Your task to perform on an android device: turn on the 12-hour format for clock Image 0: 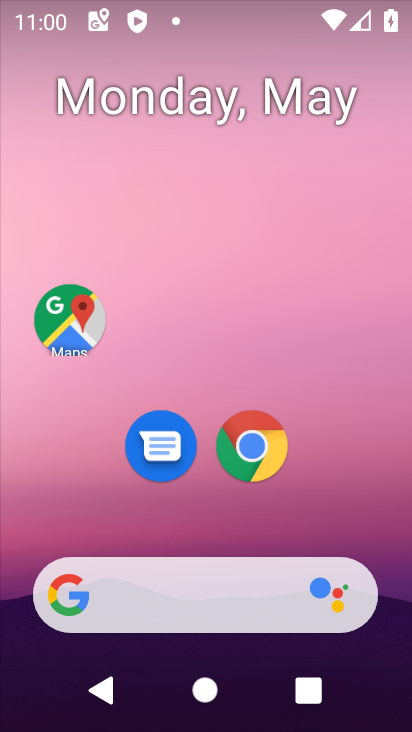
Step 0: drag from (358, 491) to (339, 14)
Your task to perform on an android device: turn on the 12-hour format for clock Image 1: 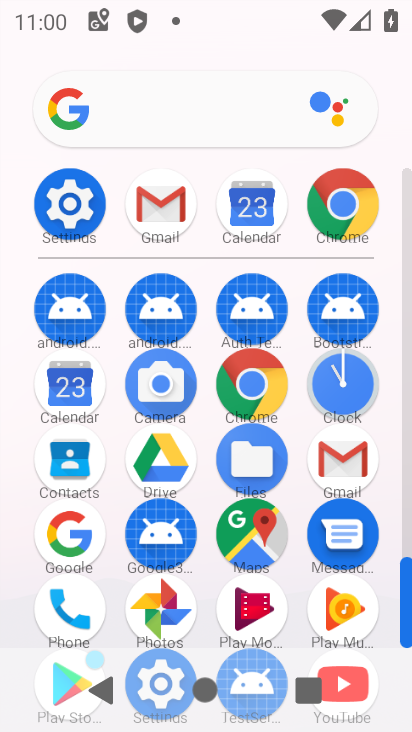
Step 1: click (354, 383)
Your task to perform on an android device: turn on the 12-hour format for clock Image 2: 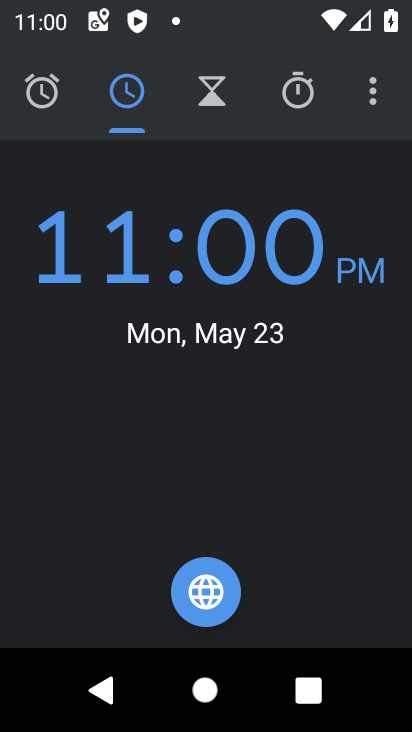
Step 2: click (363, 98)
Your task to perform on an android device: turn on the 12-hour format for clock Image 3: 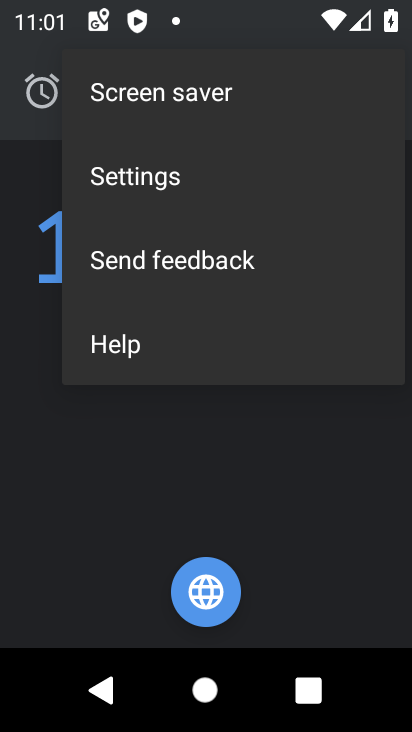
Step 3: click (163, 166)
Your task to perform on an android device: turn on the 12-hour format for clock Image 4: 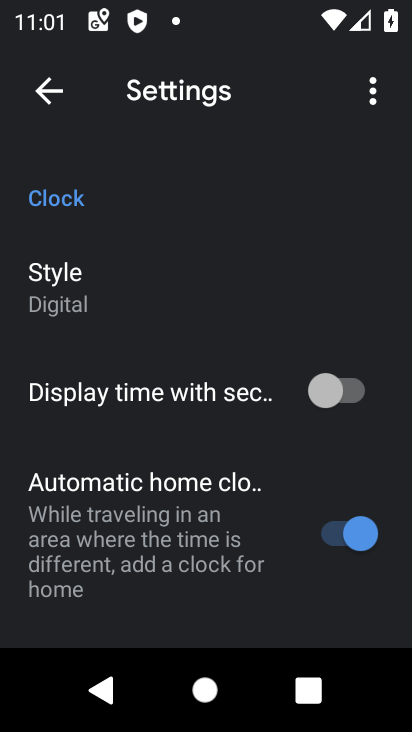
Step 4: drag from (134, 572) to (153, 286)
Your task to perform on an android device: turn on the 12-hour format for clock Image 5: 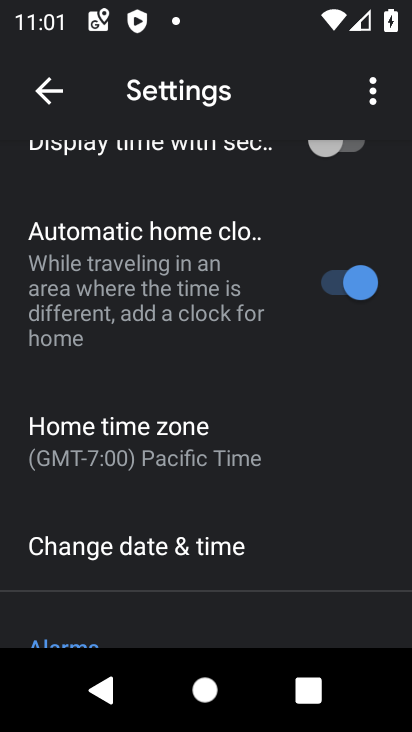
Step 5: drag from (118, 499) to (94, 209)
Your task to perform on an android device: turn on the 12-hour format for clock Image 6: 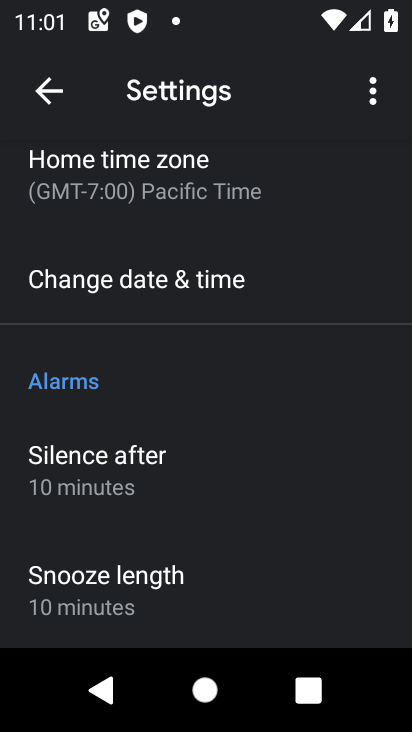
Step 6: click (151, 274)
Your task to perform on an android device: turn on the 12-hour format for clock Image 7: 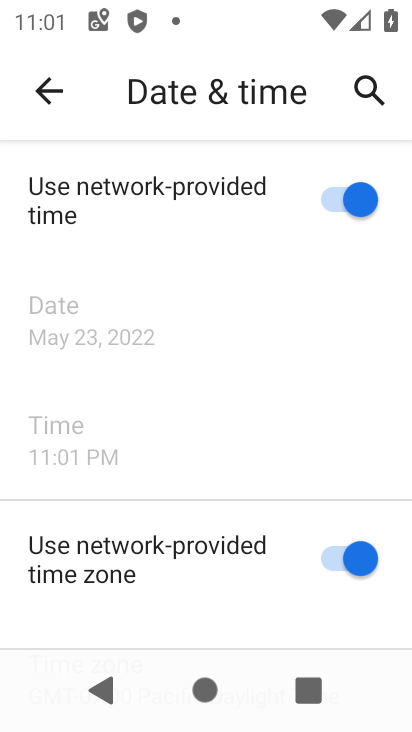
Step 7: task complete